Your task to perform on an android device: Play the last video I watched on Youtube Image 0: 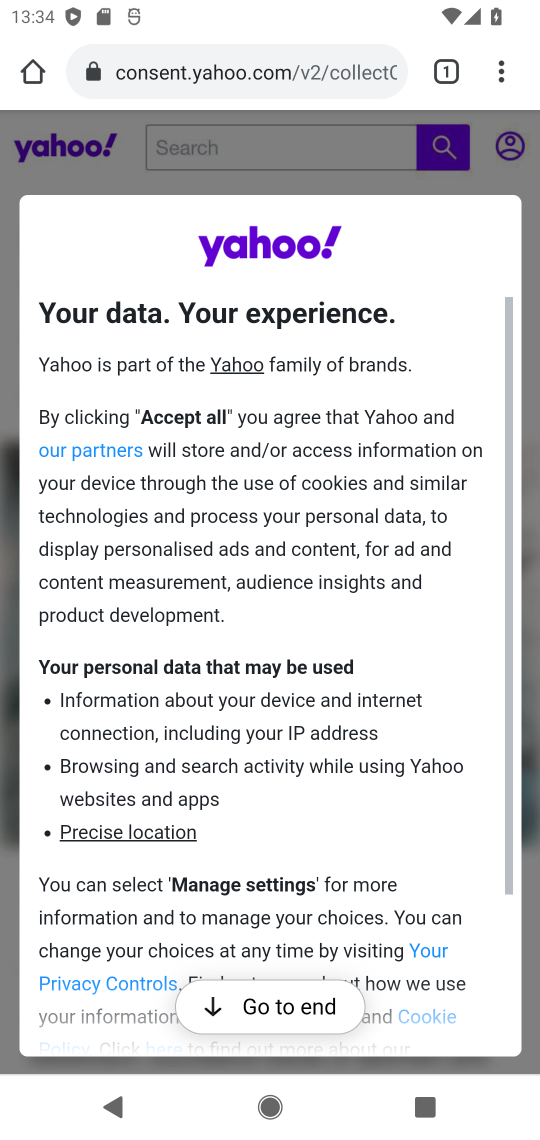
Step 0: press home button
Your task to perform on an android device: Play the last video I watched on Youtube Image 1: 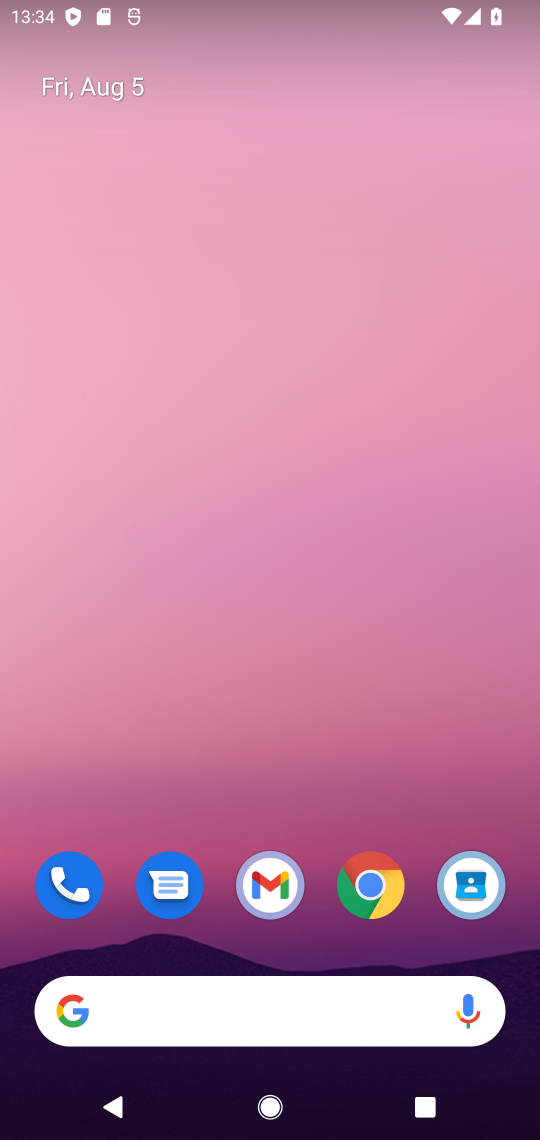
Step 1: click (200, 338)
Your task to perform on an android device: Play the last video I watched on Youtube Image 2: 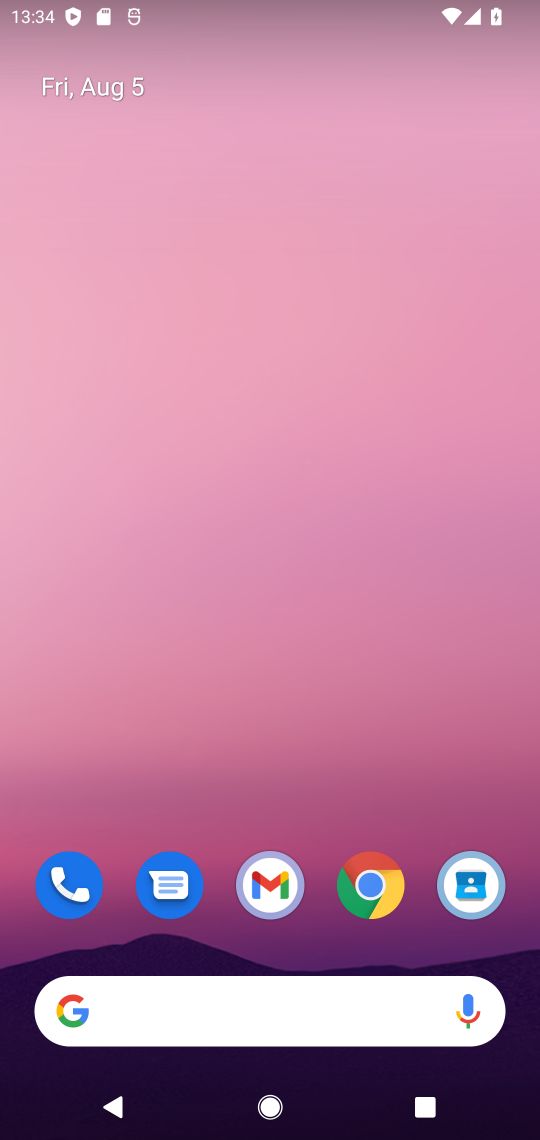
Step 2: drag from (257, 671) to (275, 442)
Your task to perform on an android device: Play the last video I watched on Youtube Image 3: 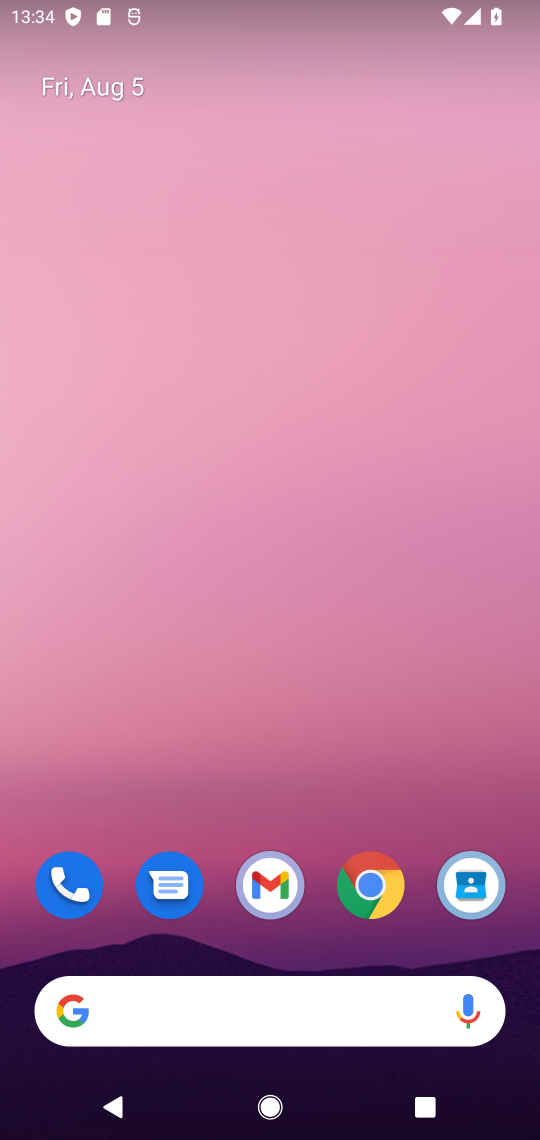
Step 3: drag from (219, 936) to (244, 266)
Your task to perform on an android device: Play the last video I watched on Youtube Image 4: 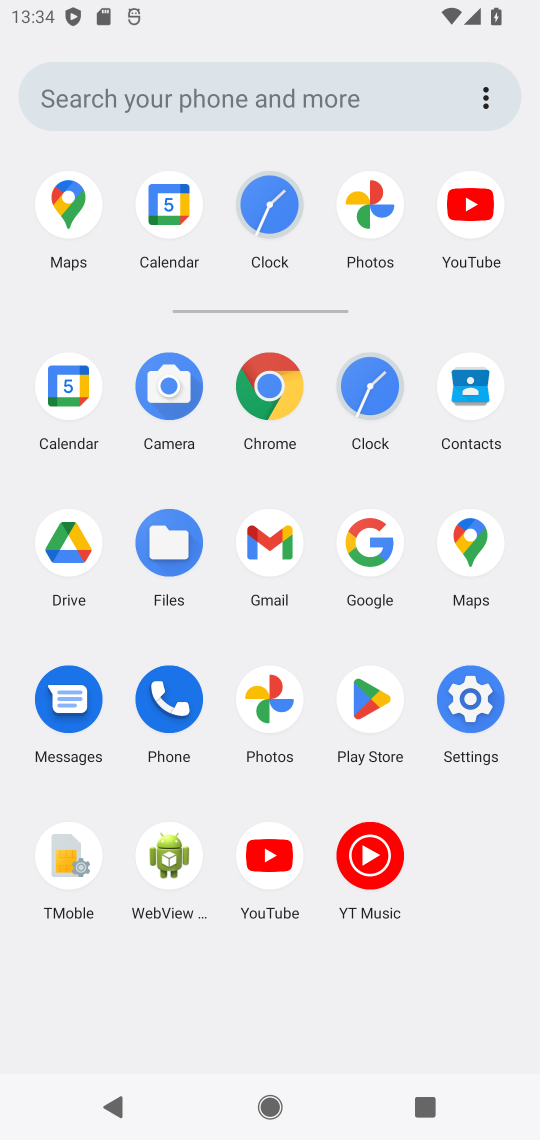
Step 4: click (270, 852)
Your task to perform on an android device: Play the last video I watched on Youtube Image 5: 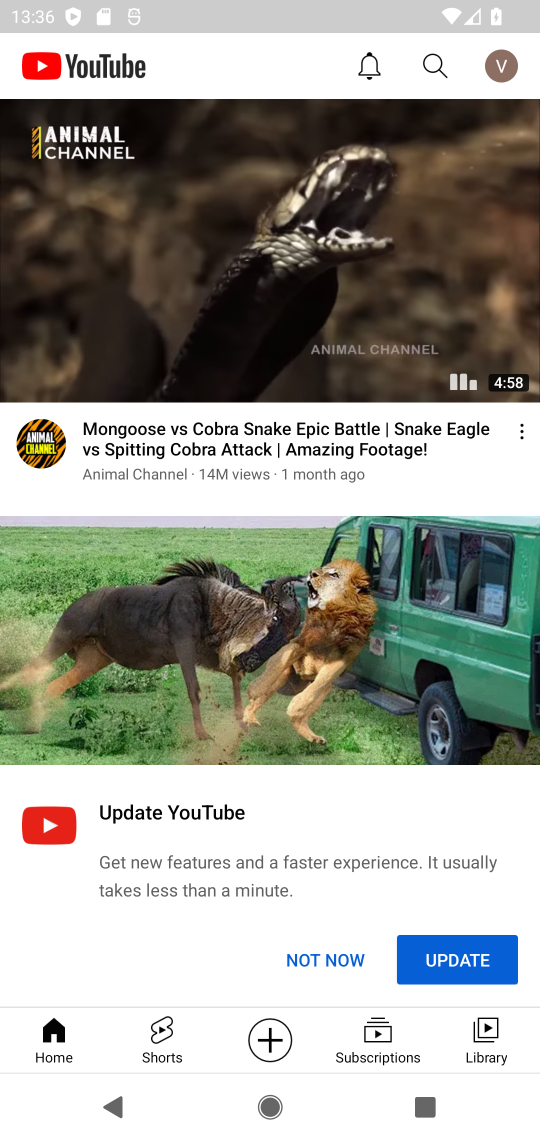
Step 5: click (497, 1028)
Your task to perform on an android device: Play the last video I watched on Youtube Image 6: 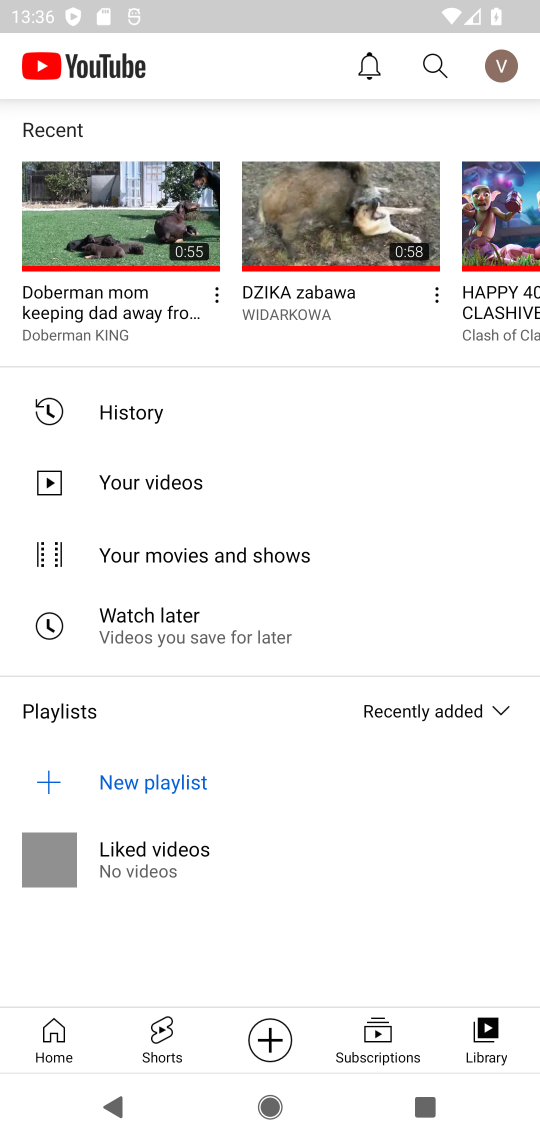
Step 6: task complete